Your task to perform on an android device: clear all cookies in the chrome app Image 0: 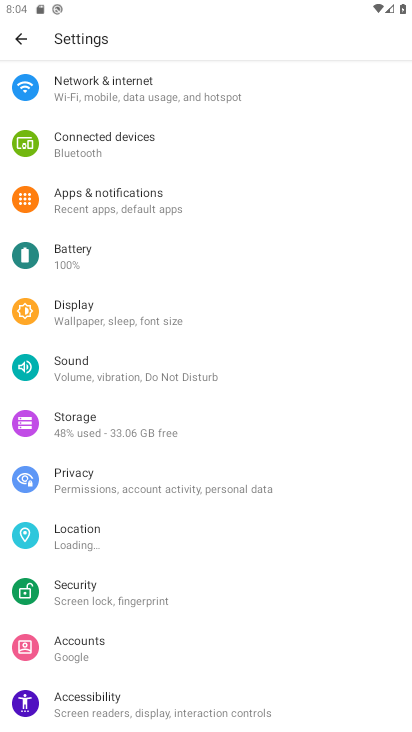
Step 0: press home button
Your task to perform on an android device: clear all cookies in the chrome app Image 1: 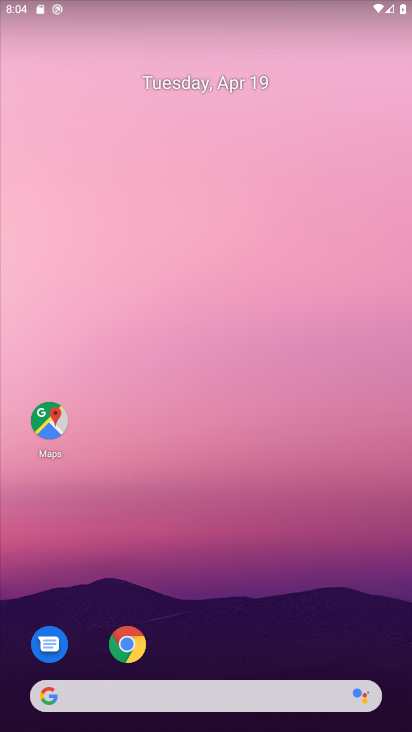
Step 1: click (130, 642)
Your task to perform on an android device: clear all cookies in the chrome app Image 2: 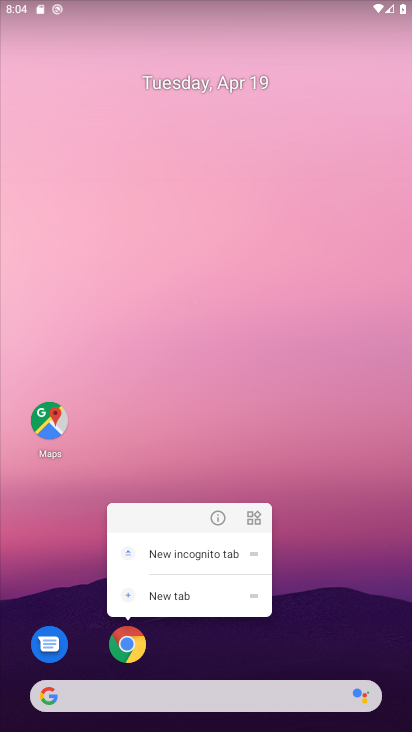
Step 2: click (215, 519)
Your task to perform on an android device: clear all cookies in the chrome app Image 3: 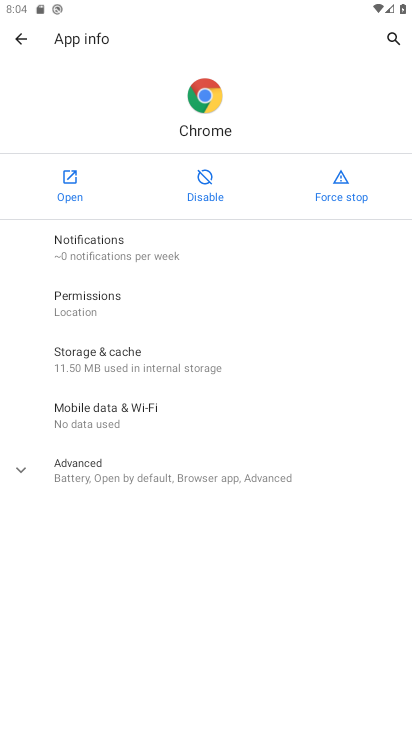
Step 3: click (70, 187)
Your task to perform on an android device: clear all cookies in the chrome app Image 4: 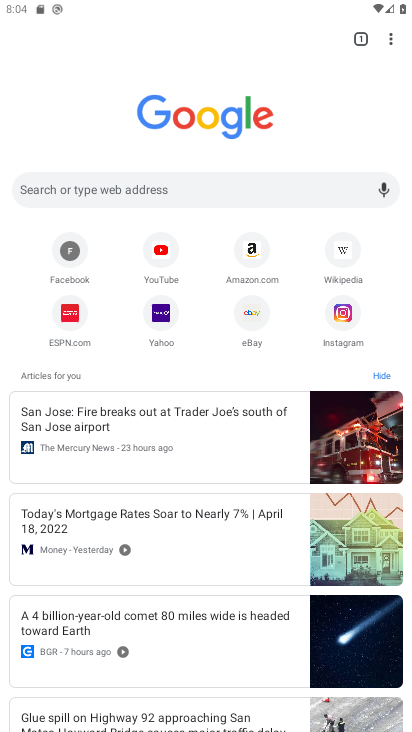
Step 4: click (389, 35)
Your task to perform on an android device: clear all cookies in the chrome app Image 5: 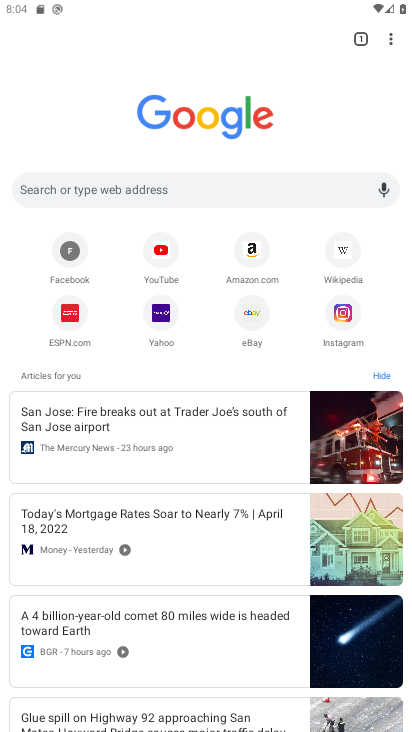
Step 5: click (389, 40)
Your task to perform on an android device: clear all cookies in the chrome app Image 6: 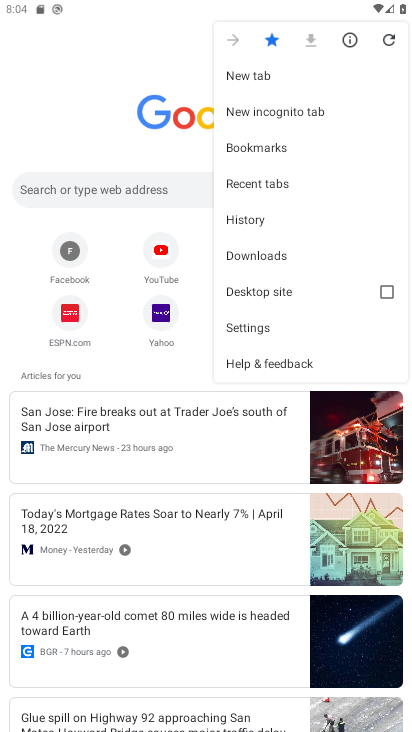
Step 6: click (252, 222)
Your task to perform on an android device: clear all cookies in the chrome app Image 7: 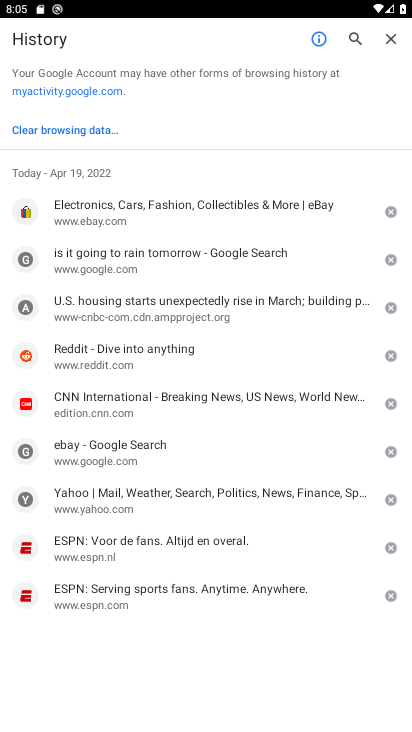
Step 7: click (97, 132)
Your task to perform on an android device: clear all cookies in the chrome app Image 8: 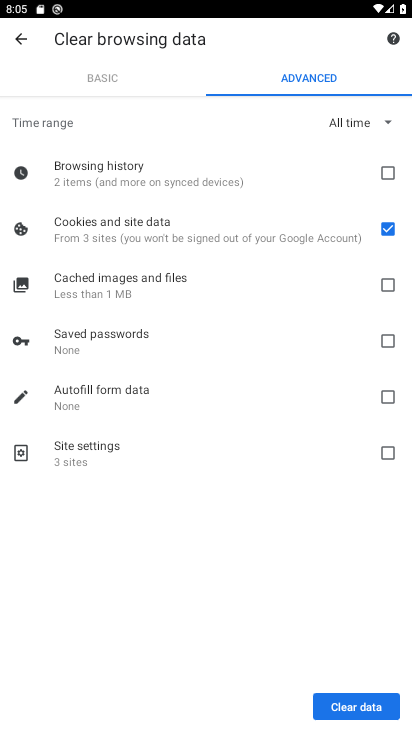
Step 8: click (352, 709)
Your task to perform on an android device: clear all cookies in the chrome app Image 9: 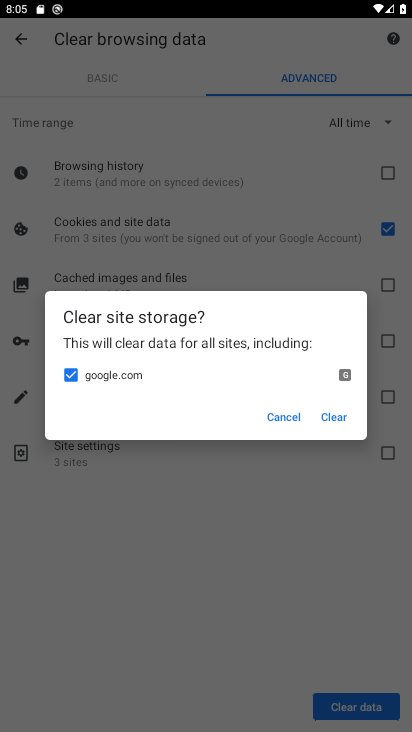
Step 9: click (334, 420)
Your task to perform on an android device: clear all cookies in the chrome app Image 10: 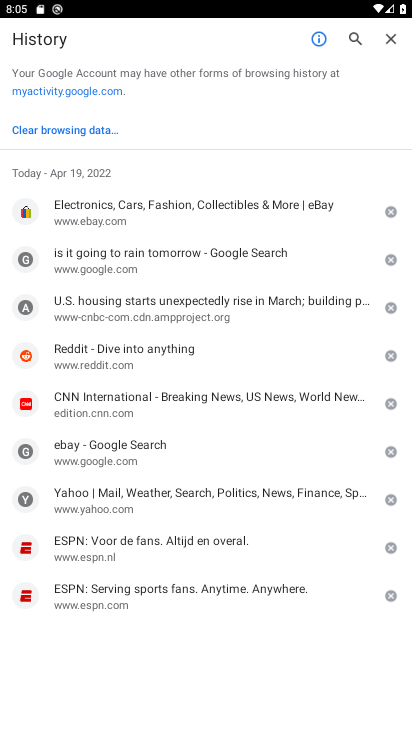
Step 10: task complete